Your task to perform on an android device: see sites visited before in the chrome app Image 0: 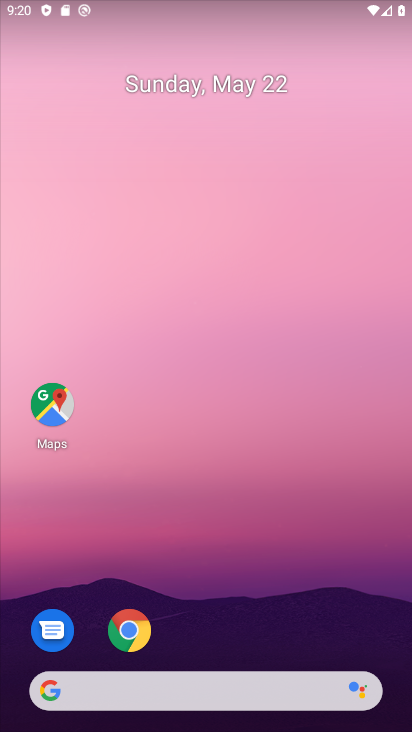
Step 0: click (131, 632)
Your task to perform on an android device: see sites visited before in the chrome app Image 1: 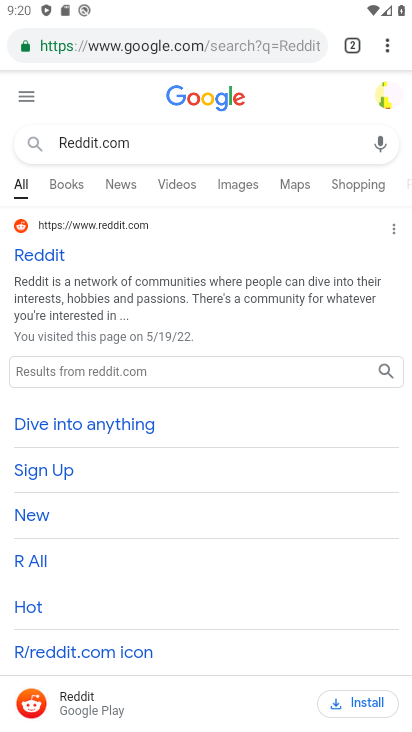
Step 1: click (383, 46)
Your task to perform on an android device: see sites visited before in the chrome app Image 2: 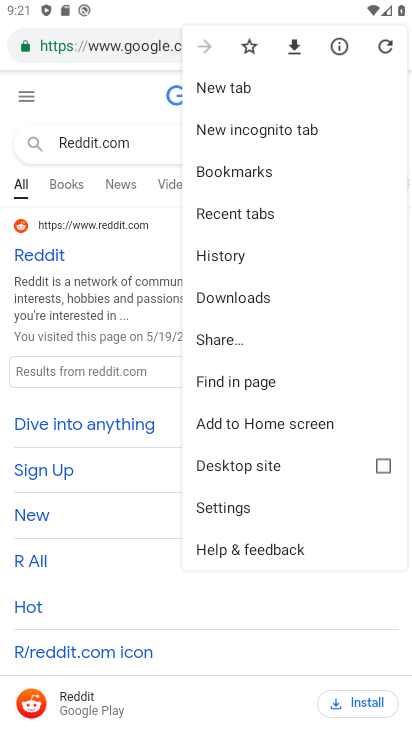
Step 2: click (240, 207)
Your task to perform on an android device: see sites visited before in the chrome app Image 3: 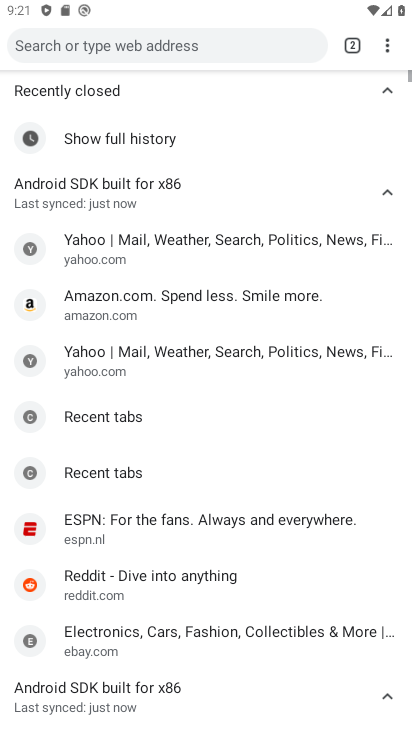
Step 3: task complete